Your task to perform on an android device: open sync settings in chrome Image 0: 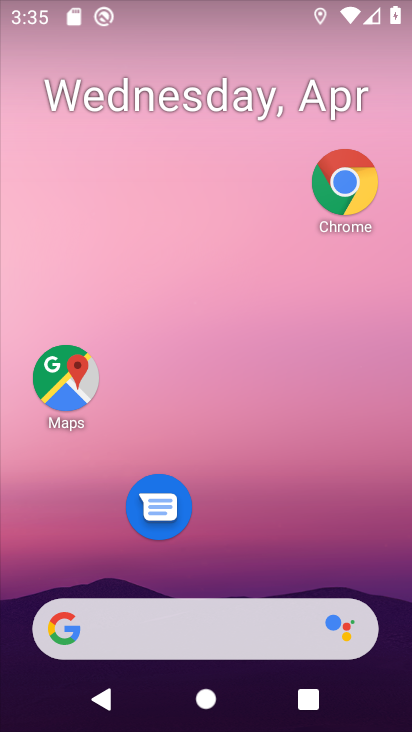
Step 0: click (344, 194)
Your task to perform on an android device: open sync settings in chrome Image 1: 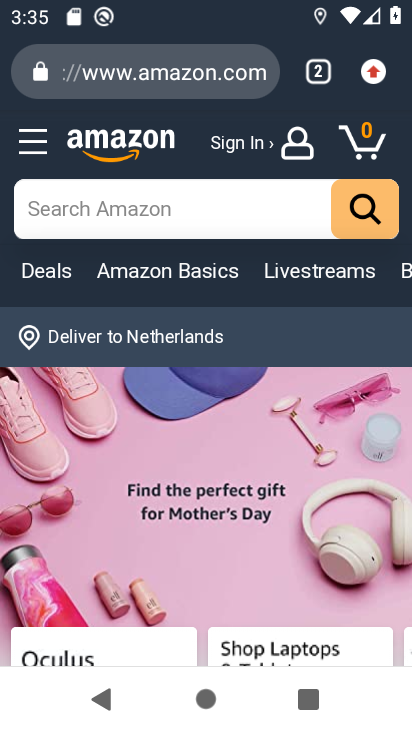
Step 1: click (370, 69)
Your task to perform on an android device: open sync settings in chrome Image 2: 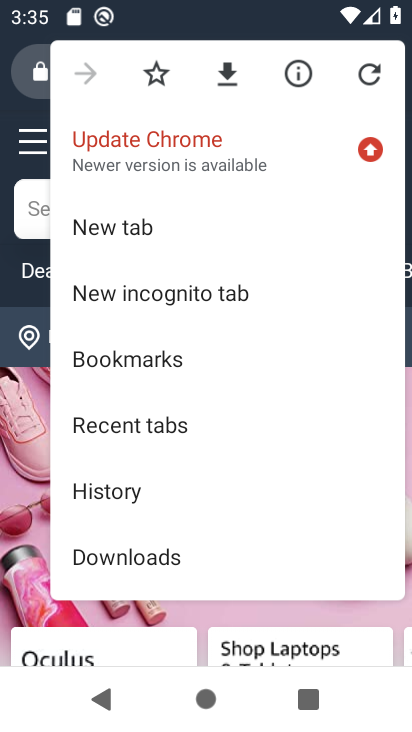
Step 2: drag from (154, 525) to (231, 144)
Your task to perform on an android device: open sync settings in chrome Image 3: 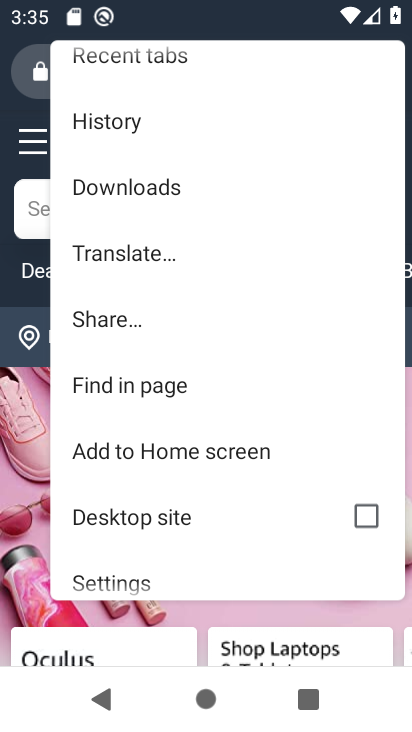
Step 3: drag from (130, 497) to (201, 197)
Your task to perform on an android device: open sync settings in chrome Image 4: 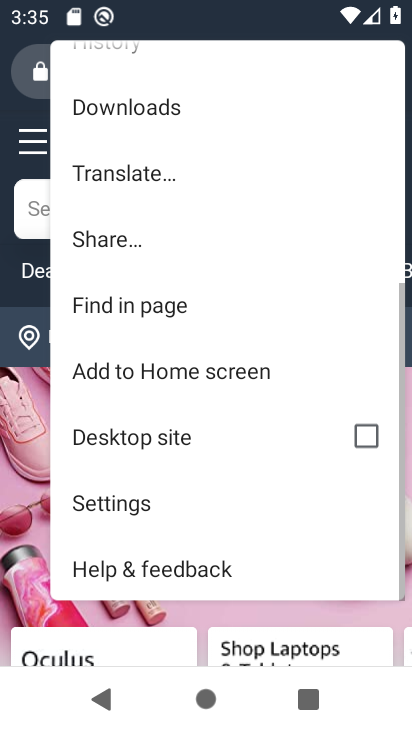
Step 4: click (110, 509)
Your task to perform on an android device: open sync settings in chrome Image 5: 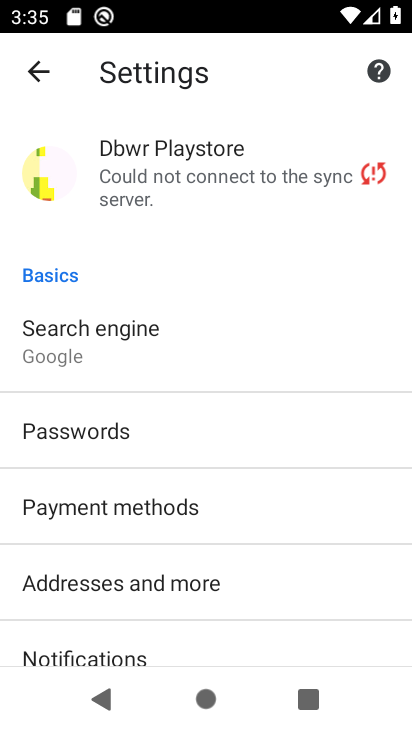
Step 5: click (195, 188)
Your task to perform on an android device: open sync settings in chrome Image 6: 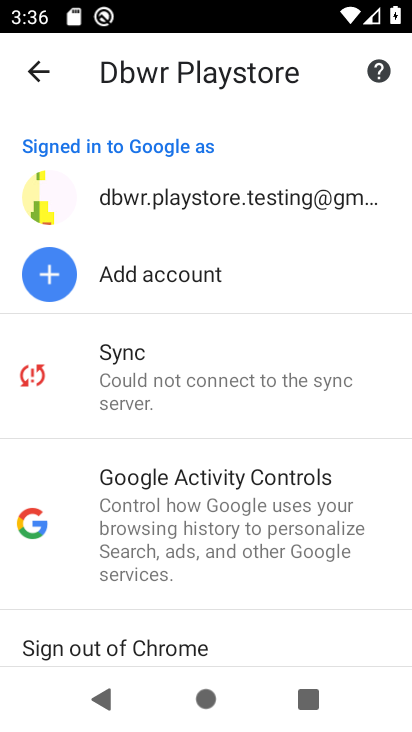
Step 6: click (164, 359)
Your task to perform on an android device: open sync settings in chrome Image 7: 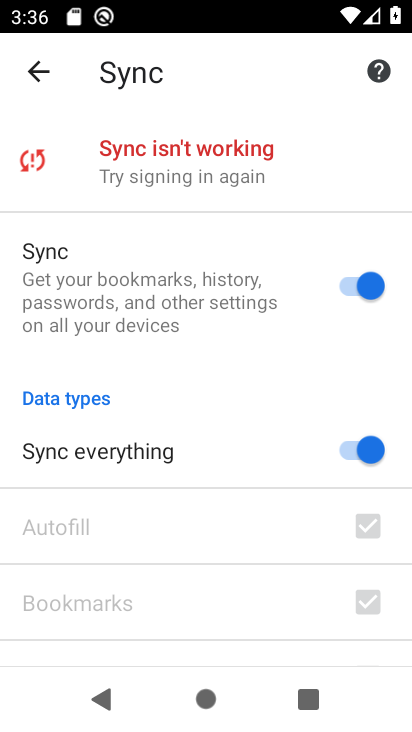
Step 7: task complete